Your task to perform on an android device: change the clock display to analog Image 0: 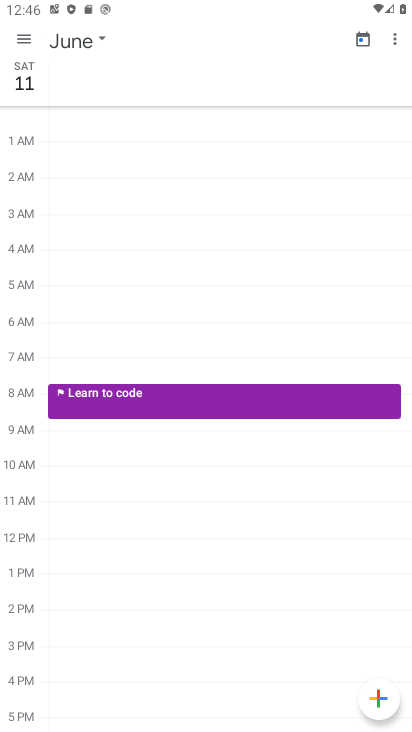
Step 0: press home button
Your task to perform on an android device: change the clock display to analog Image 1: 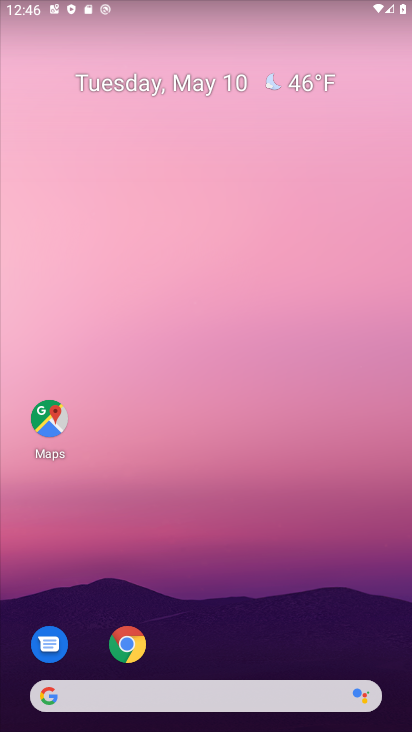
Step 1: drag from (235, 658) to (252, 217)
Your task to perform on an android device: change the clock display to analog Image 2: 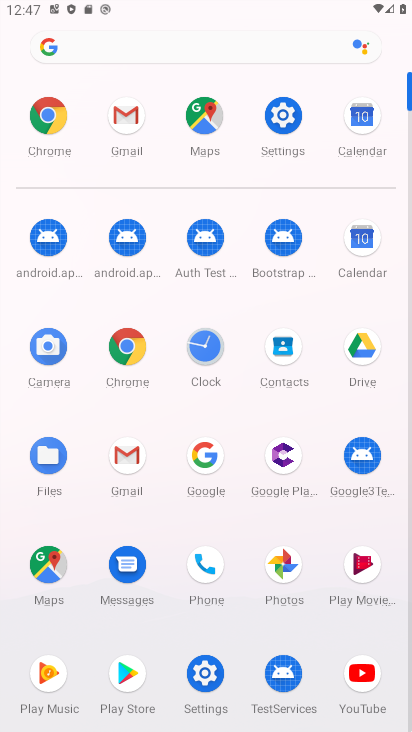
Step 2: click (224, 356)
Your task to perform on an android device: change the clock display to analog Image 3: 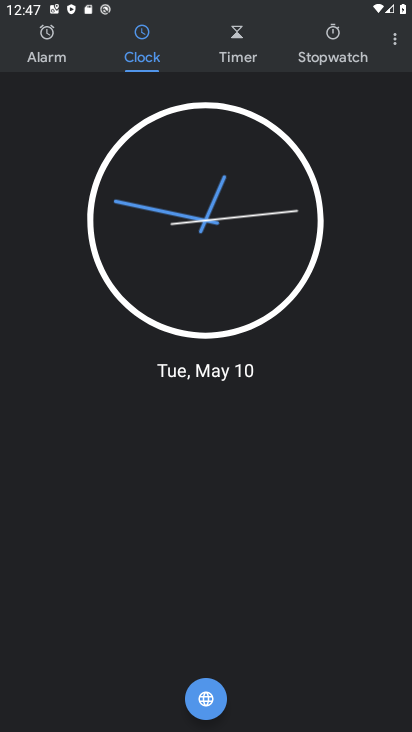
Step 3: click (396, 50)
Your task to perform on an android device: change the clock display to analog Image 4: 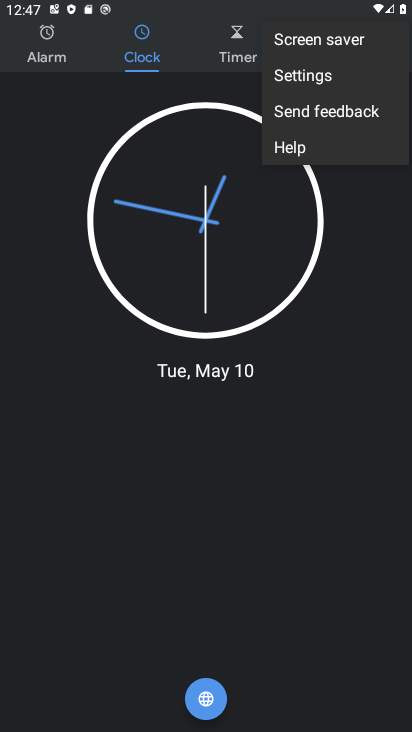
Step 4: click (348, 78)
Your task to perform on an android device: change the clock display to analog Image 5: 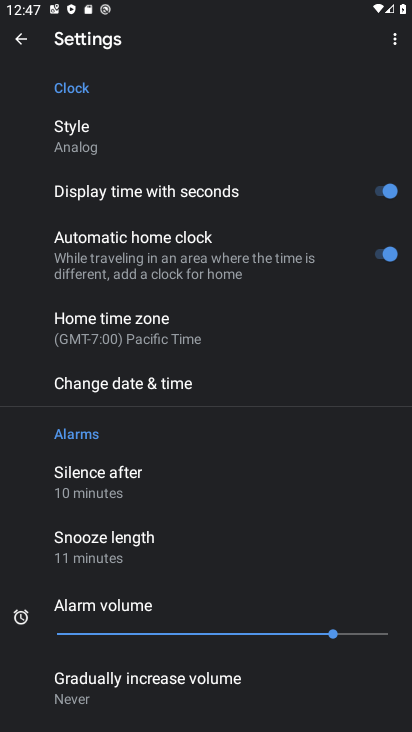
Step 5: task complete